Your task to perform on an android device: Open accessibility settings Image 0: 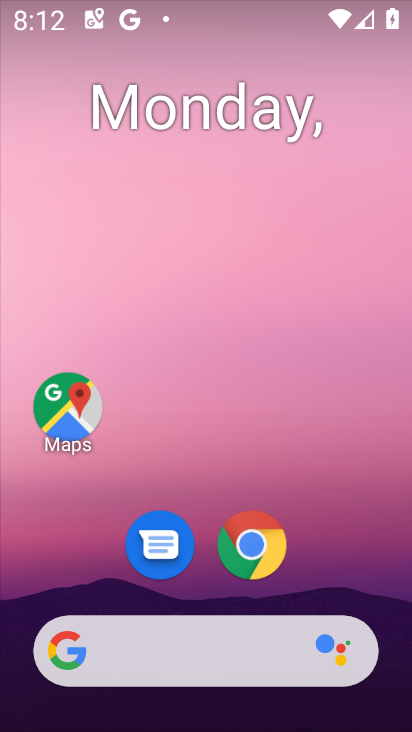
Step 0: drag from (207, 647) to (324, 128)
Your task to perform on an android device: Open accessibility settings Image 1: 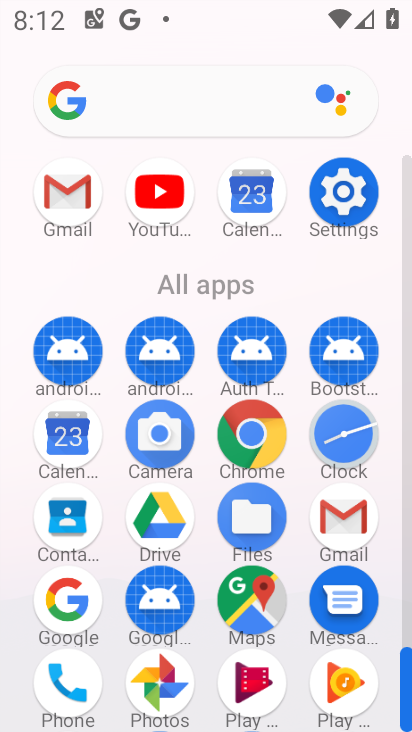
Step 1: click (335, 191)
Your task to perform on an android device: Open accessibility settings Image 2: 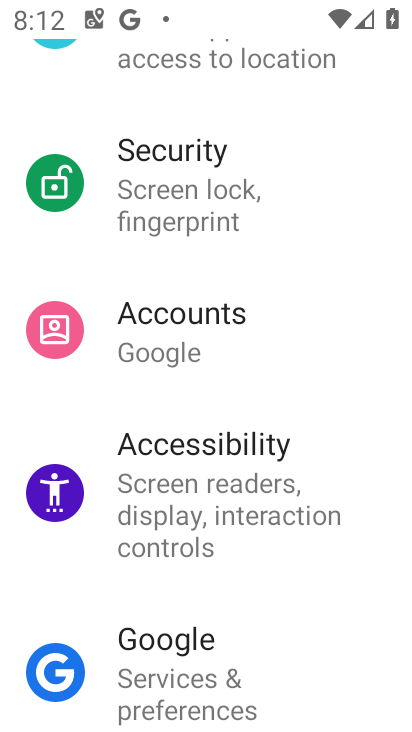
Step 2: click (225, 469)
Your task to perform on an android device: Open accessibility settings Image 3: 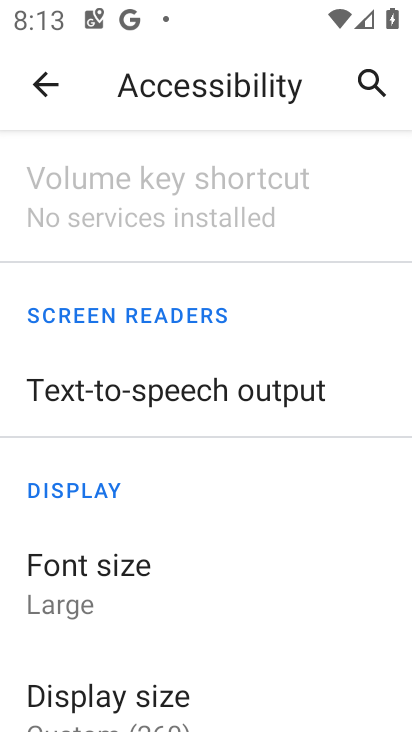
Step 3: task complete